Your task to perform on an android device: Open Google Maps and go to "Timeline" Image 0: 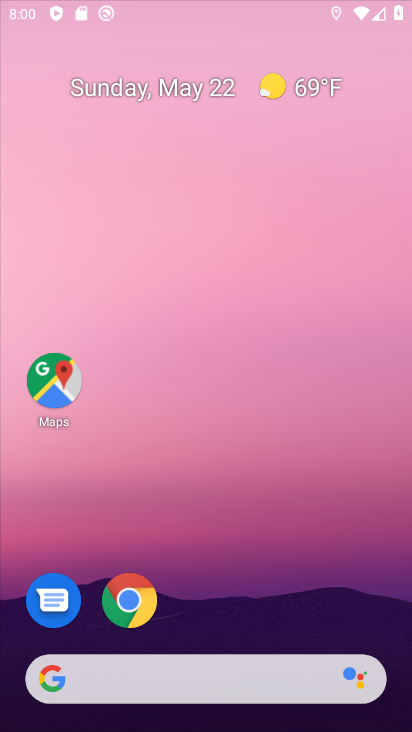
Step 0: drag from (261, 597) to (408, 332)
Your task to perform on an android device: Open Google Maps and go to "Timeline" Image 1: 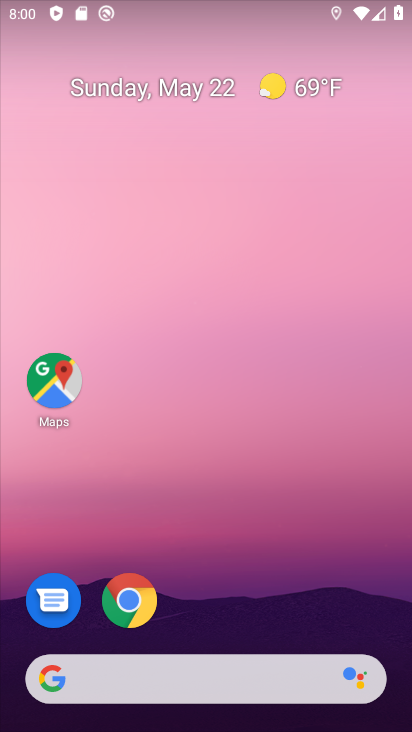
Step 1: click (50, 388)
Your task to perform on an android device: Open Google Maps and go to "Timeline" Image 2: 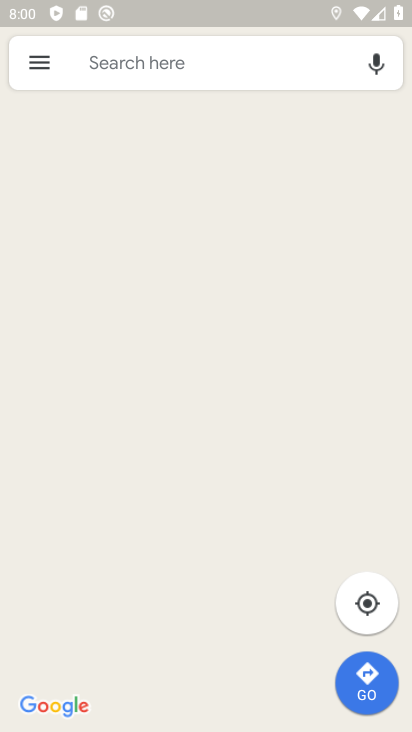
Step 2: click (39, 58)
Your task to perform on an android device: Open Google Maps and go to "Timeline" Image 3: 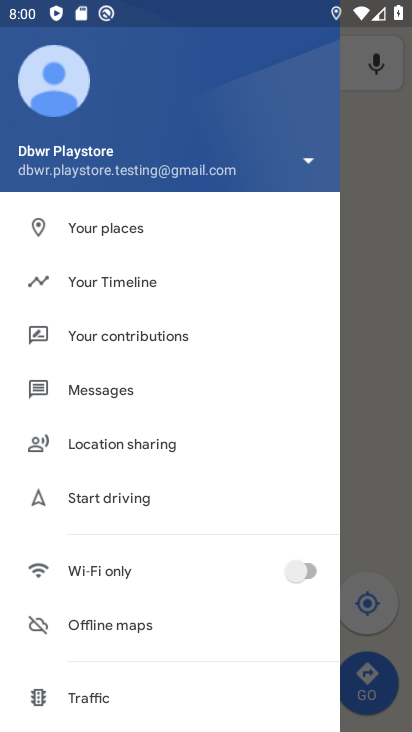
Step 3: click (68, 286)
Your task to perform on an android device: Open Google Maps and go to "Timeline" Image 4: 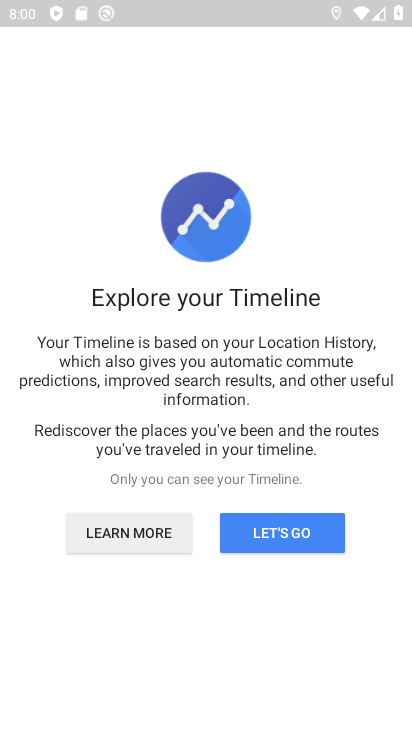
Step 4: click (300, 534)
Your task to perform on an android device: Open Google Maps and go to "Timeline" Image 5: 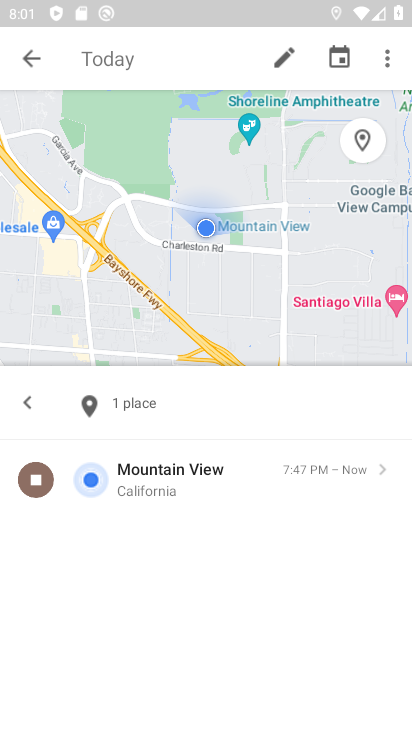
Step 5: task complete